Your task to perform on an android device: change the upload size in google photos Image 0: 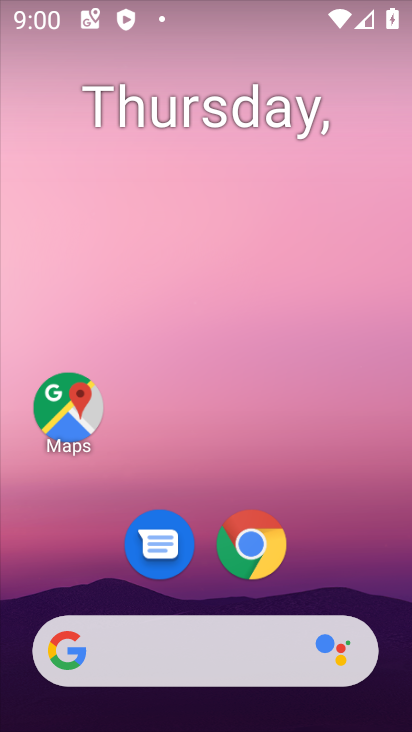
Step 0: drag from (73, 582) to (225, 103)
Your task to perform on an android device: change the upload size in google photos Image 1: 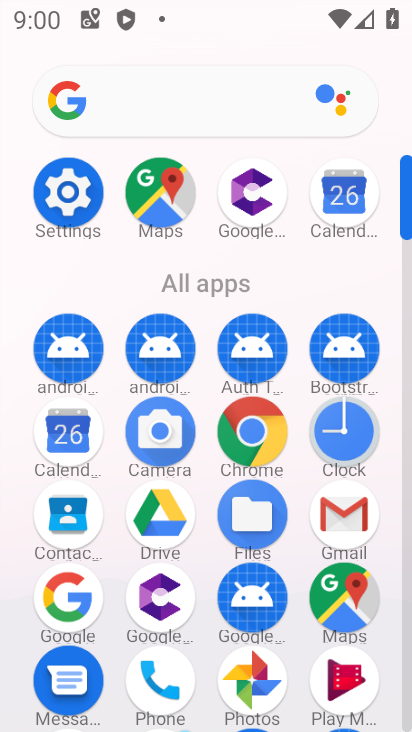
Step 1: drag from (149, 592) to (249, 301)
Your task to perform on an android device: change the upload size in google photos Image 2: 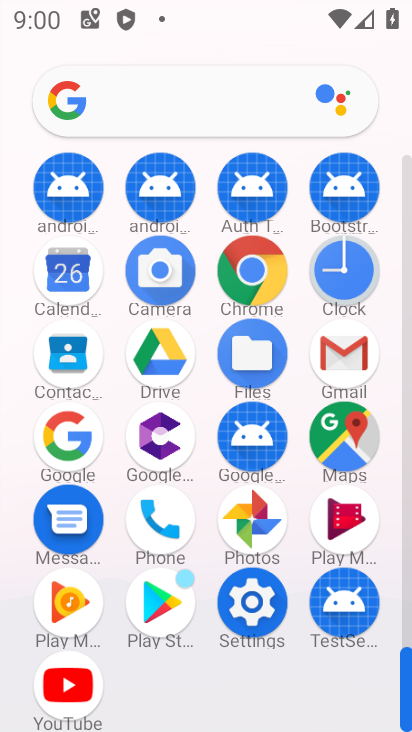
Step 2: click (247, 532)
Your task to perform on an android device: change the upload size in google photos Image 3: 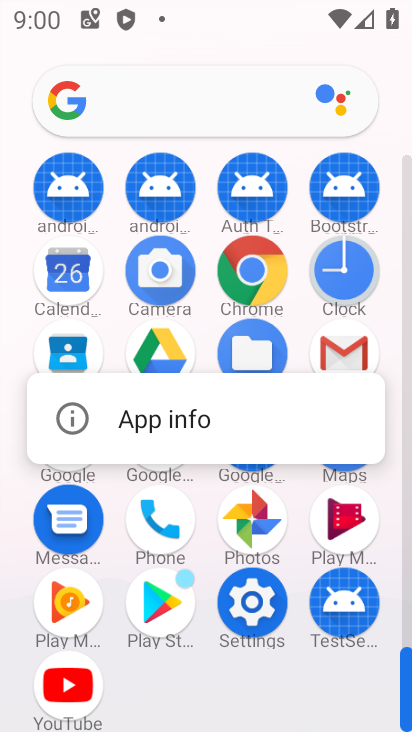
Step 3: click (258, 520)
Your task to perform on an android device: change the upload size in google photos Image 4: 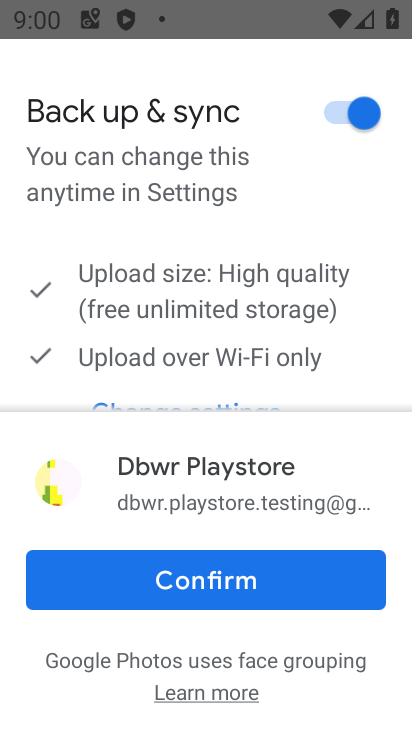
Step 4: click (192, 568)
Your task to perform on an android device: change the upload size in google photos Image 5: 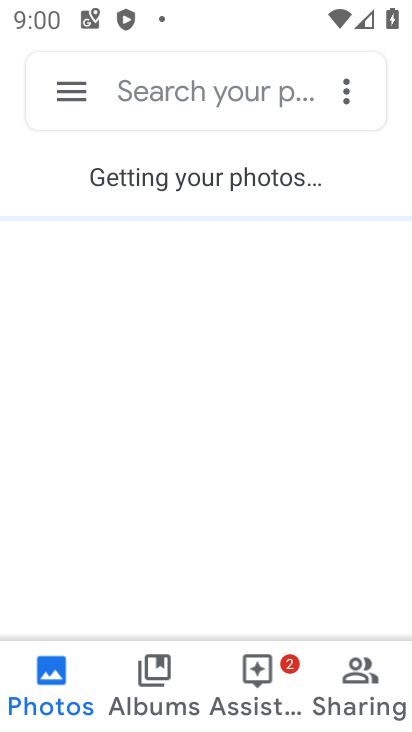
Step 5: click (88, 103)
Your task to perform on an android device: change the upload size in google photos Image 6: 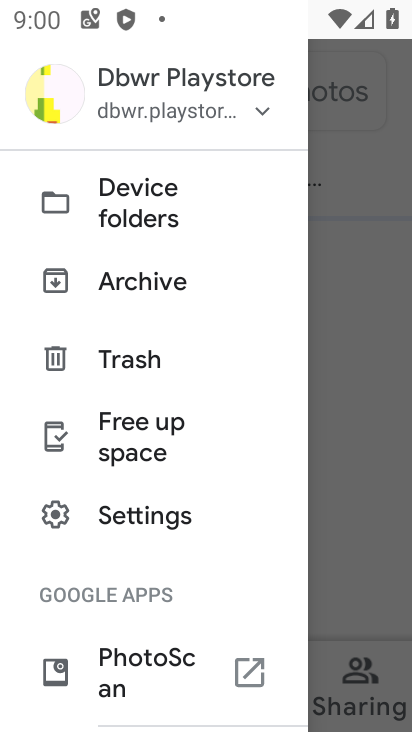
Step 6: click (152, 510)
Your task to perform on an android device: change the upload size in google photos Image 7: 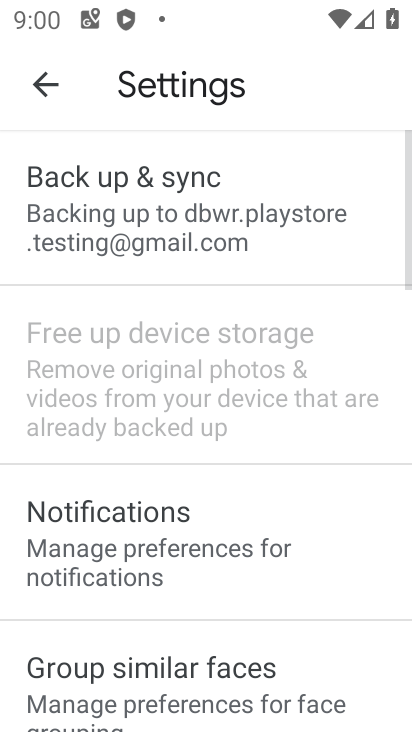
Step 7: click (227, 216)
Your task to perform on an android device: change the upload size in google photos Image 8: 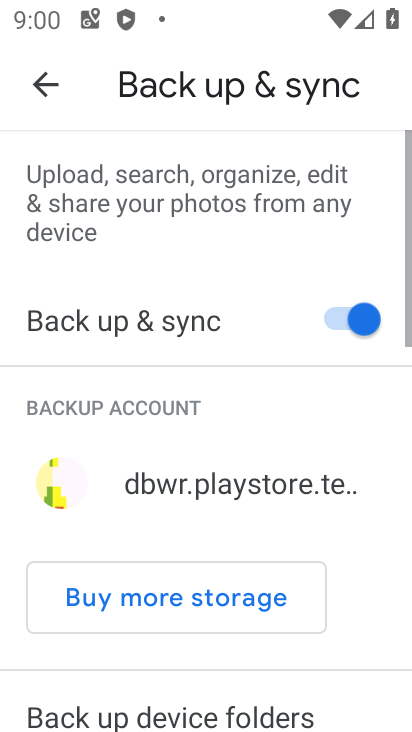
Step 8: drag from (236, 649) to (343, 133)
Your task to perform on an android device: change the upload size in google photos Image 9: 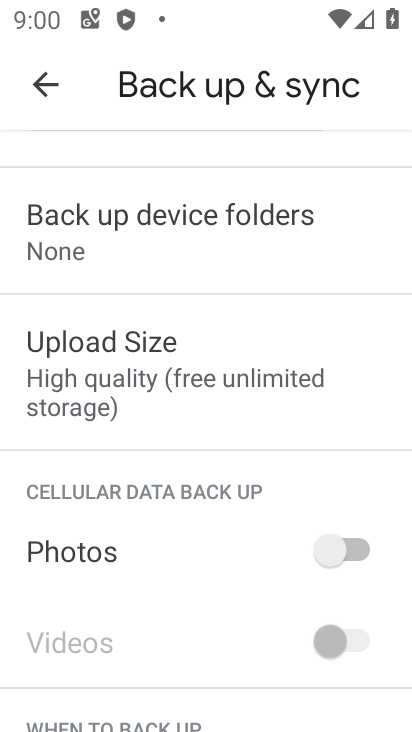
Step 9: click (151, 369)
Your task to perform on an android device: change the upload size in google photos Image 10: 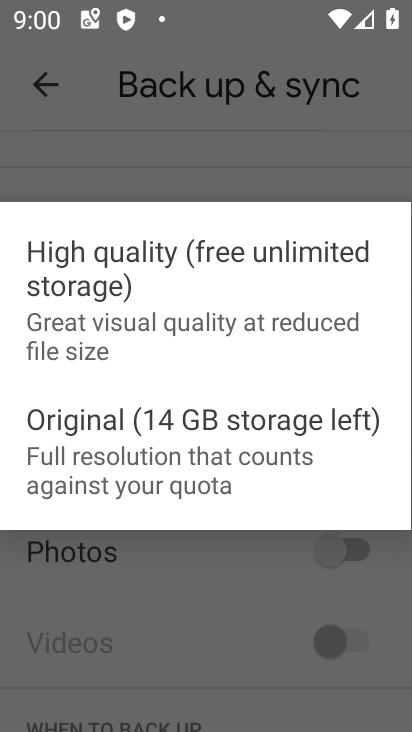
Step 10: click (143, 447)
Your task to perform on an android device: change the upload size in google photos Image 11: 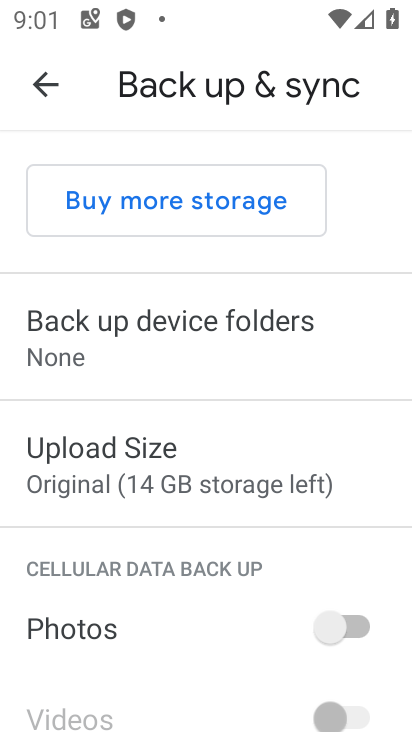
Step 11: task complete